Your task to perform on an android device: see creations saved in the google photos Image 0: 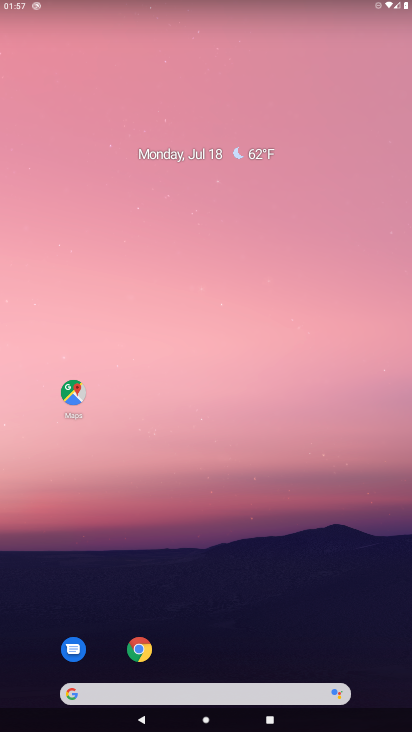
Step 0: drag from (63, 677) to (209, 220)
Your task to perform on an android device: see creations saved in the google photos Image 1: 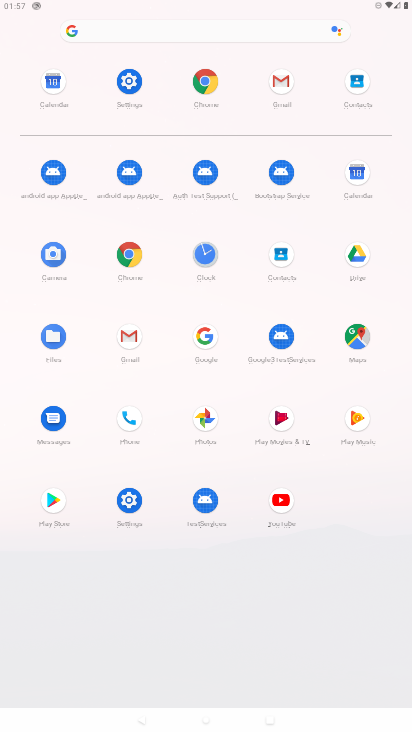
Step 1: click (197, 415)
Your task to perform on an android device: see creations saved in the google photos Image 2: 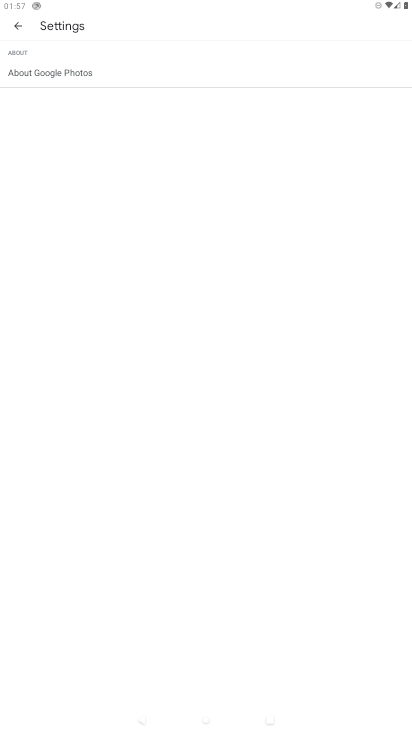
Step 2: click (16, 31)
Your task to perform on an android device: see creations saved in the google photos Image 3: 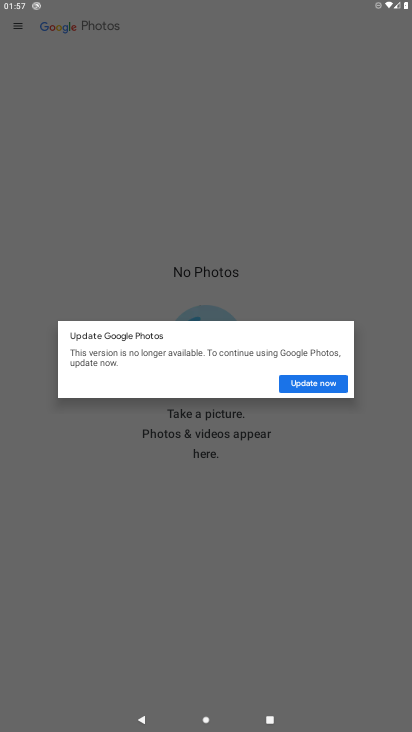
Step 3: click (296, 382)
Your task to perform on an android device: see creations saved in the google photos Image 4: 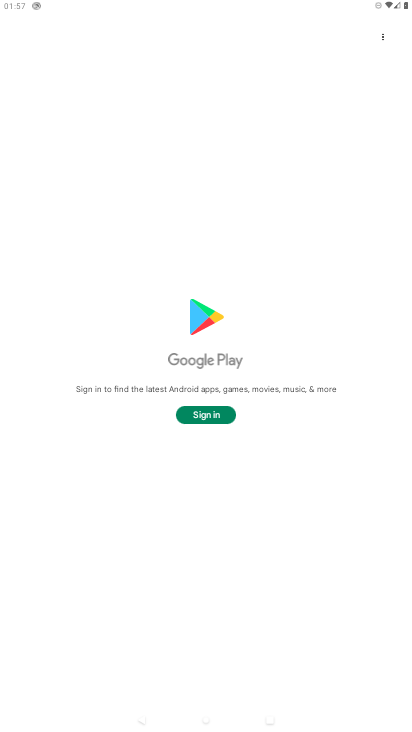
Step 4: click (206, 415)
Your task to perform on an android device: see creations saved in the google photos Image 5: 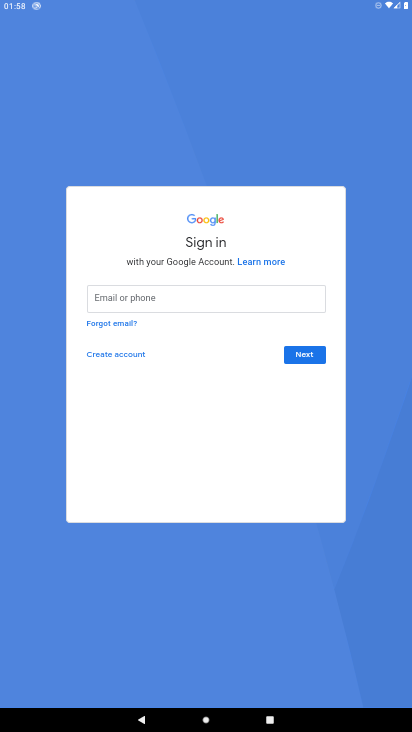
Step 5: task complete